Your task to perform on an android device: change text size in settings app Image 0: 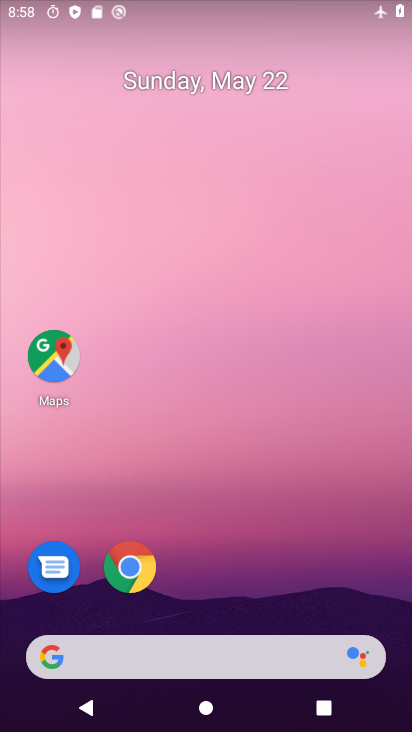
Step 0: drag from (188, 609) to (262, 23)
Your task to perform on an android device: change text size in settings app Image 1: 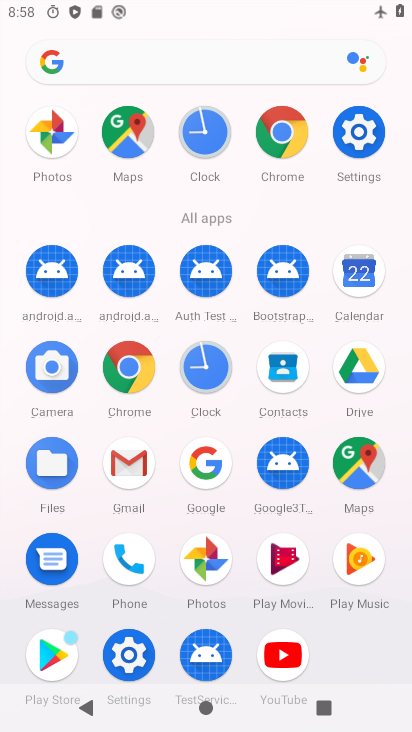
Step 1: click (128, 671)
Your task to perform on an android device: change text size in settings app Image 2: 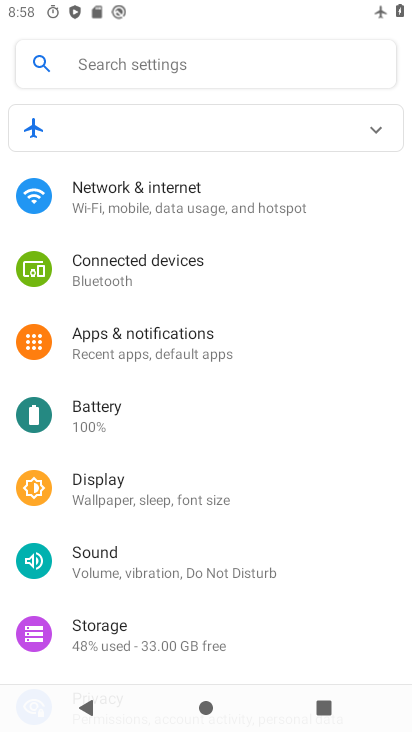
Step 2: click (176, 516)
Your task to perform on an android device: change text size in settings app Image 3: 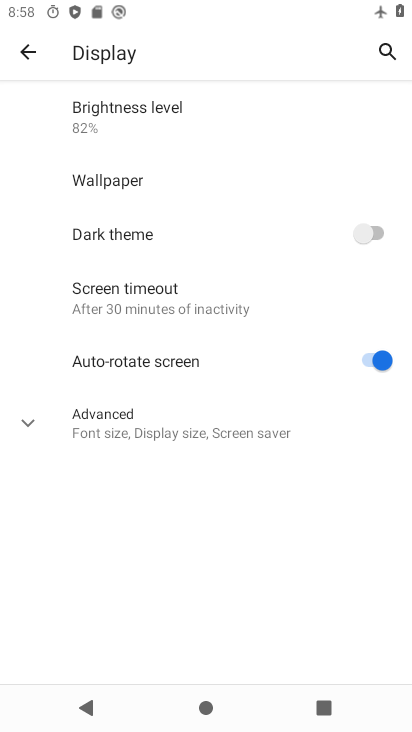
Step 3: click (156, 432)
Your task to perform on an android device: change text size in settings app Image 4: 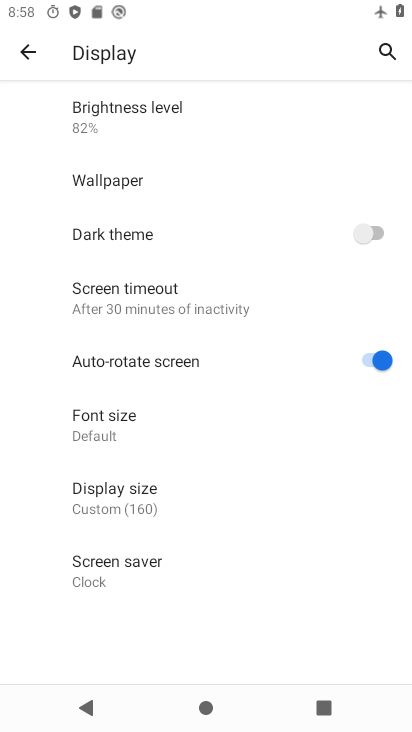
Step 4: click (133, 422)
Your task to perform on an android device: change text size in settings app Image 5: 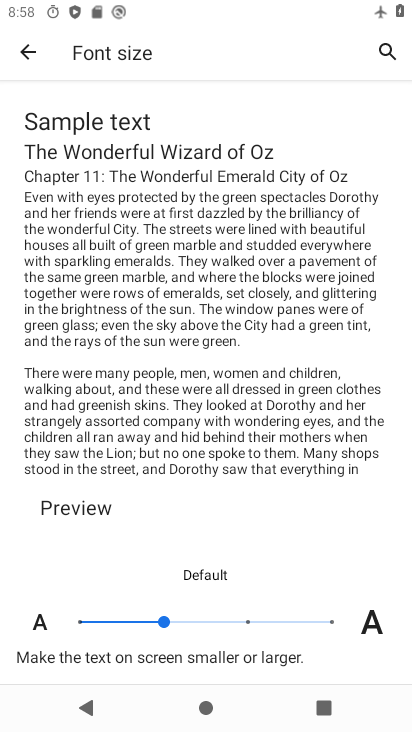
Step 5: click (84, 611)
Your task to perform on an android device: change text size in settings app Image 6: 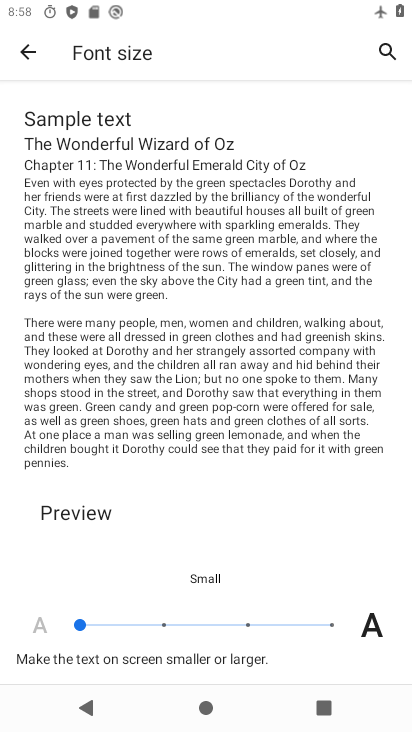
Step 6: task complete